Your task to perform on an android device: toggle improve location accuracy Image 0: 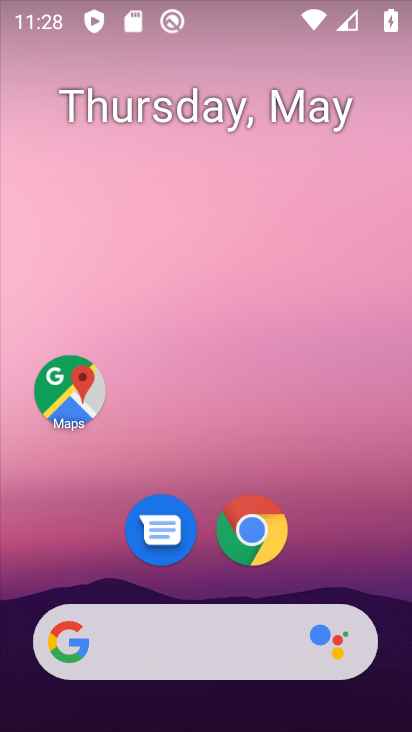
Step 0: drag from (288, 571) to (296, 11)
Your task to perform on an android device: toggle improve location accuracy Image 1: 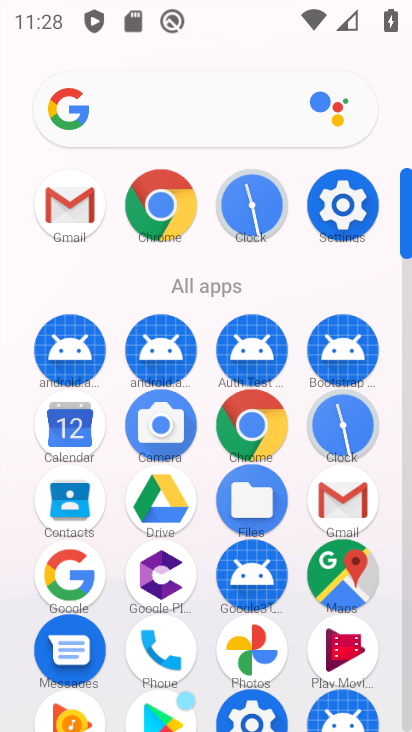
Step 1: click (326, 192)
Your task to perform on an android device: toggle improve location accuracy Image 2: 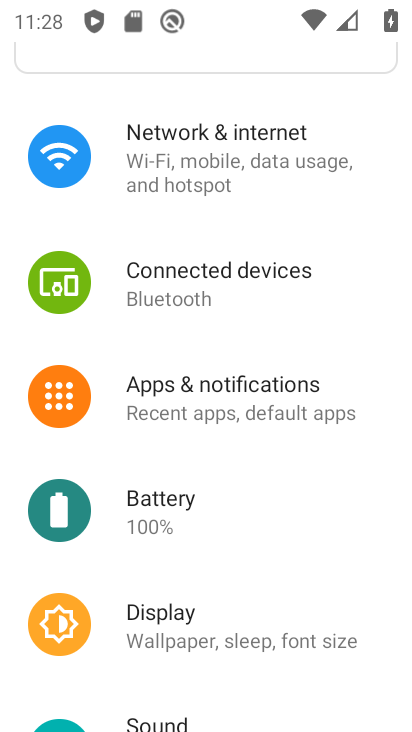
Step 2: drag from (237, 600) to (231, 182)
Your task to perform on an android device: toggle improve location accuracy Image 3: 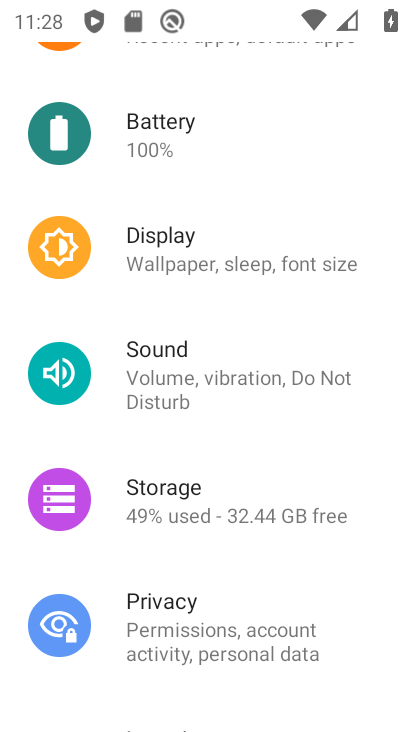
Step 3: drag from (238, 598) to (253, 223)
Your task to perform on an android device: toggle improve location accuracy Image 4: 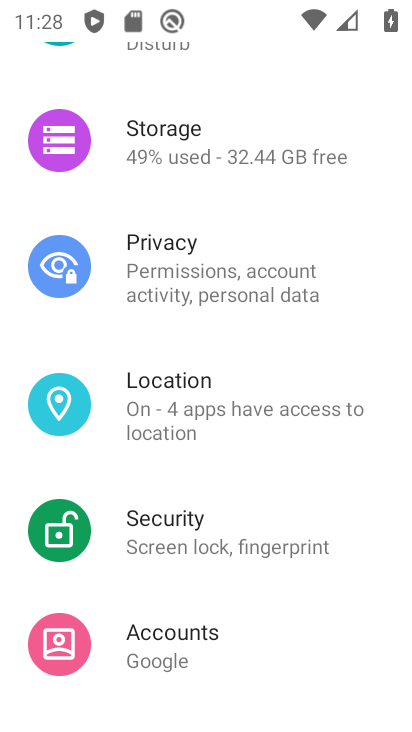
Step 4: click (191, 411)
Your task to perform on an android device: toggle improve location accuracy Image 5: 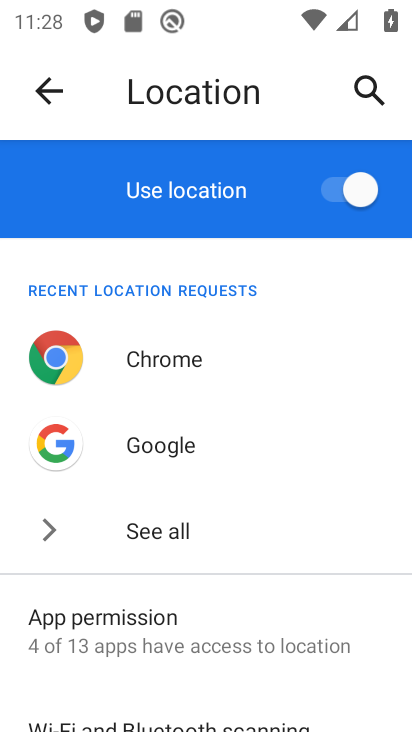
Step 5: drag from (217, 664) to (227, 235)
Your task to perform on an android device: toggle improve location accuracy Image 6: 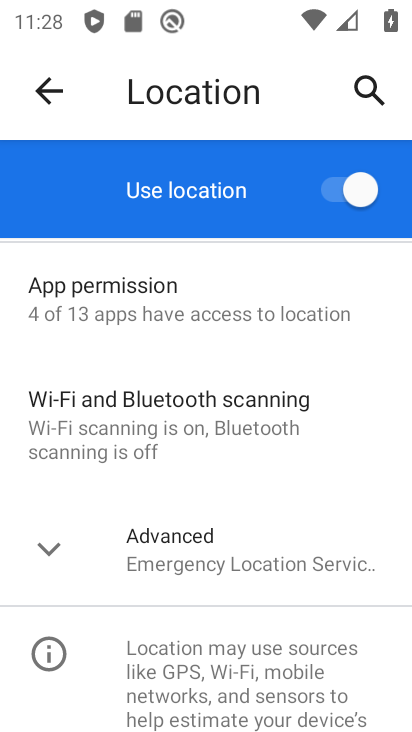
Step 6: click (259, 564)
Your task to perform on an android device: toggle improve location accuracy Image 7: 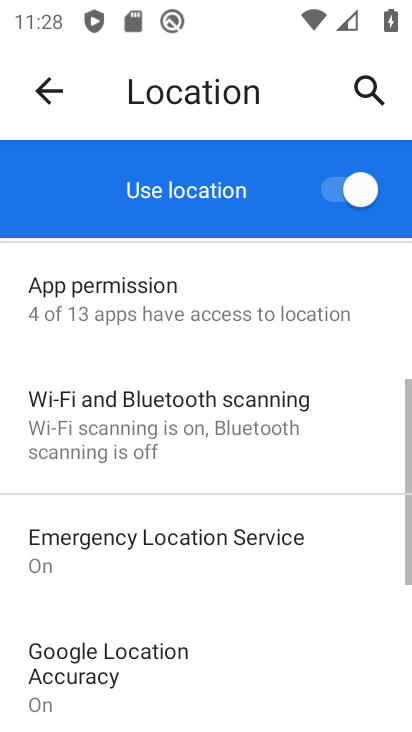
Step 7: drag from (263, 574) to (226, 315)
Your task to perform on an android device: toggle improve location accuracy Image 8: 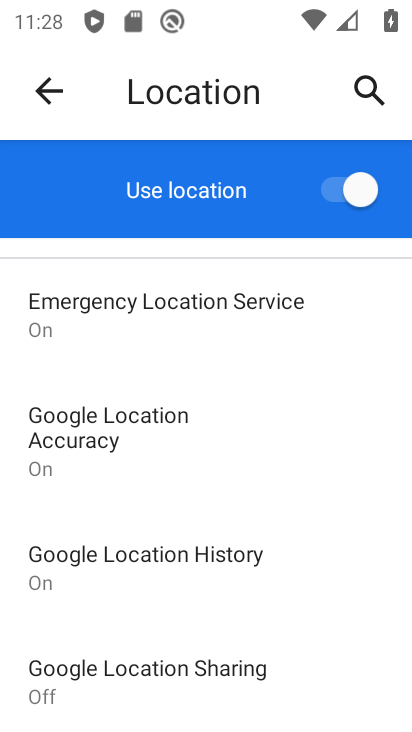
Step 8: click (193, 410)
Your task to perform on an android device: toggle improve location accuracy Image 9: 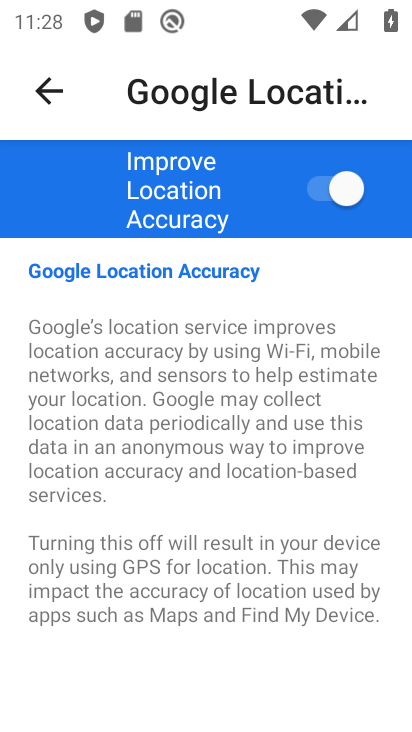
Step 9: click (322, 192)
Your task to perform on an android device: toggle improve location accuracy Image 10: 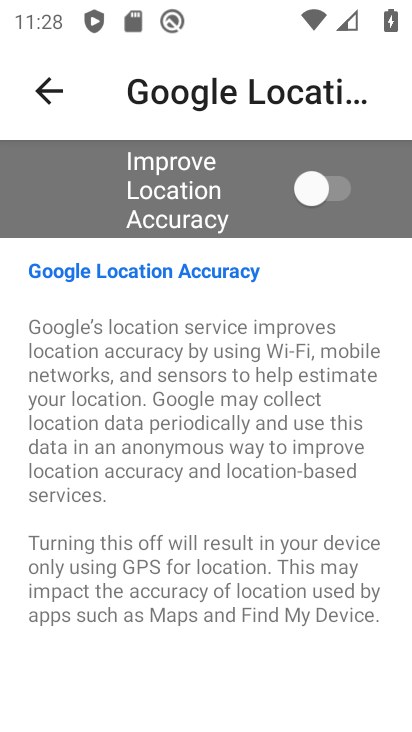
Step 10: task complete